Your task to perform on an android device: Go to Maps Image 0: 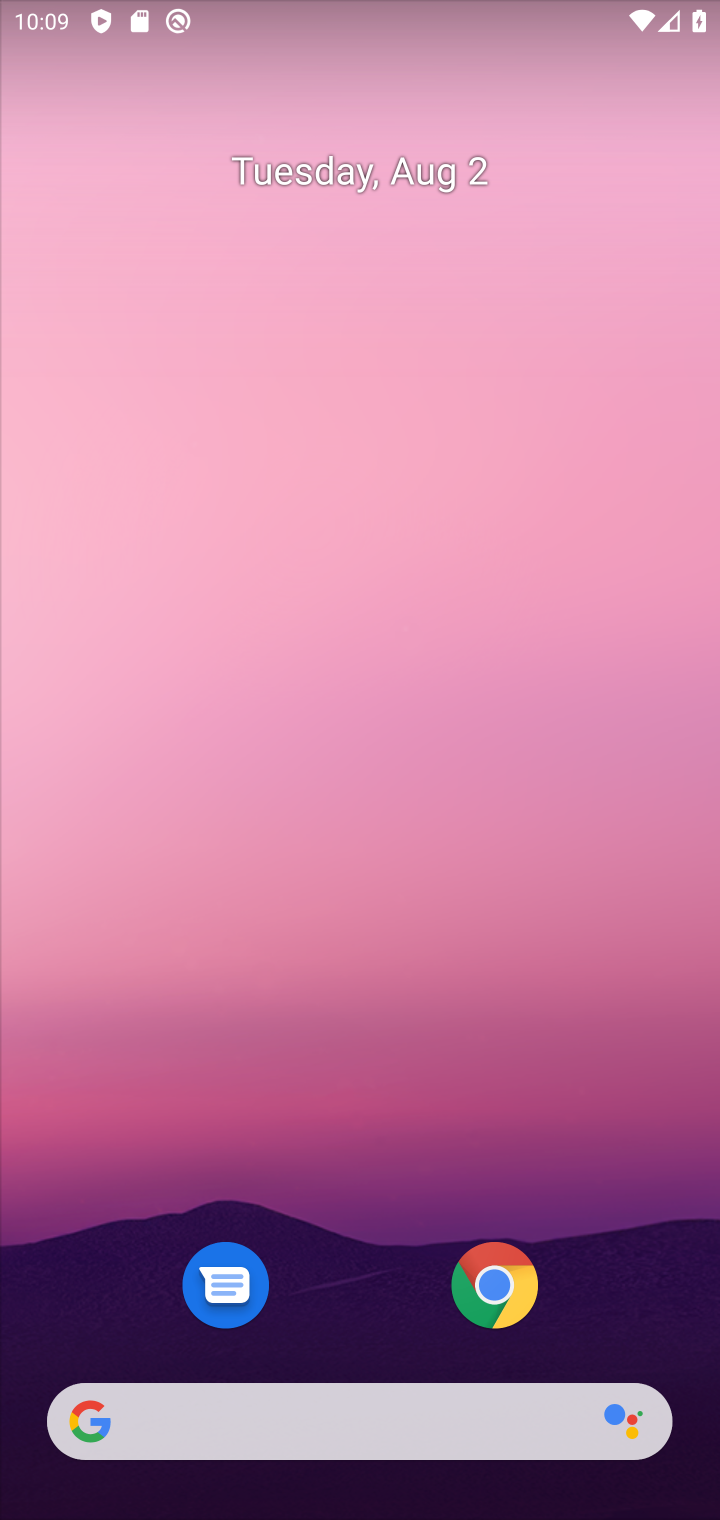
Step 0: drag from (341, 1328) to (596, 15)
Your task to perform on an android device: Go to Maps Image 1: 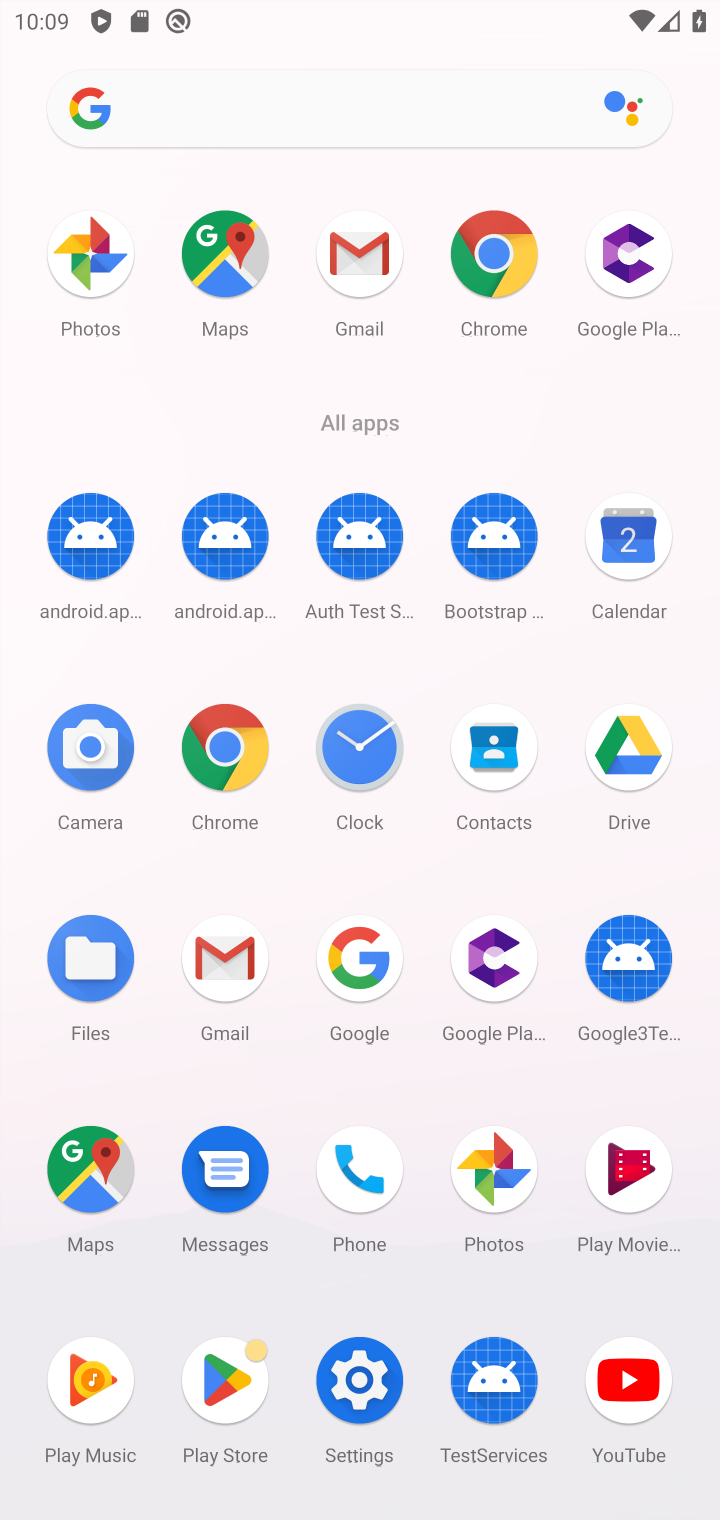
Step 1: click (86, 1169)
Your task to perform on an android device: Go to Maps Image 2: 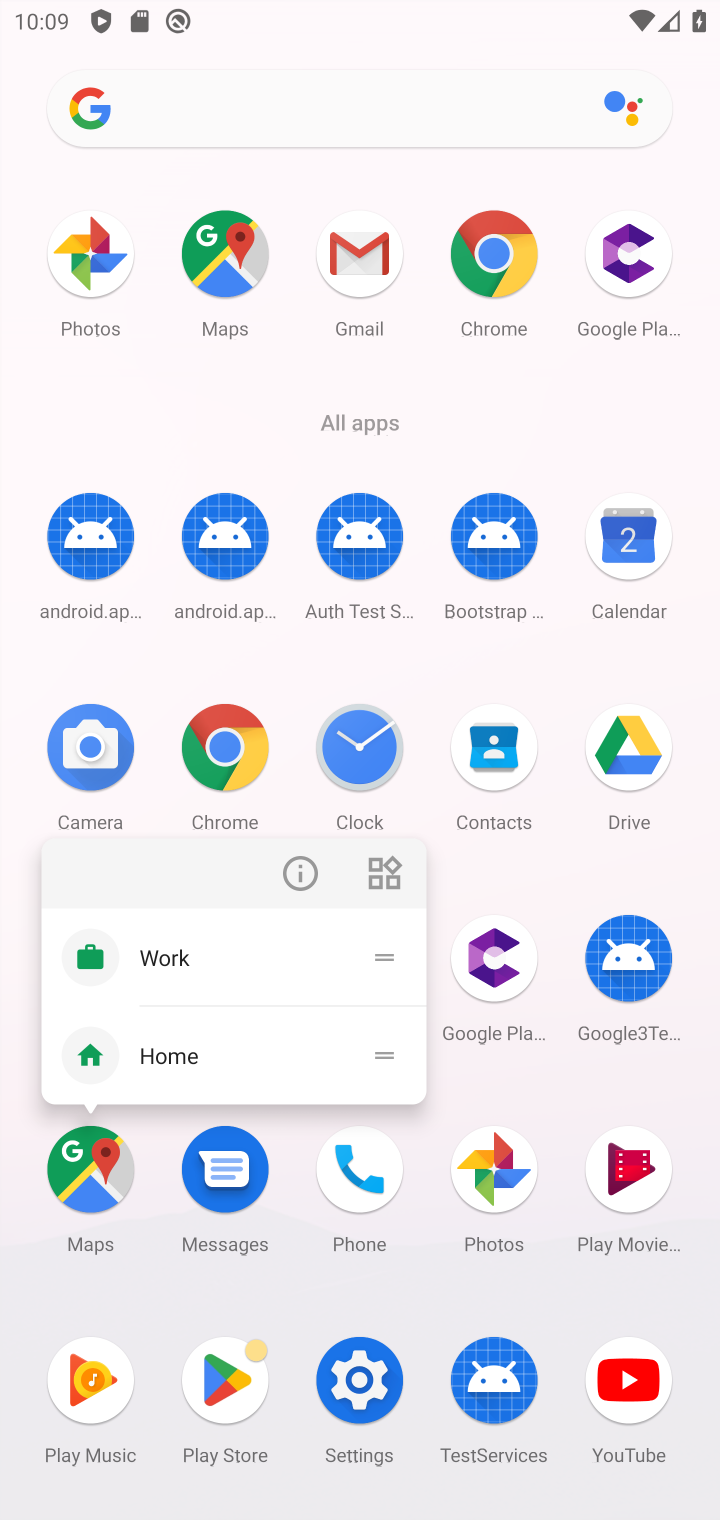
Step 2: click (297, 860)
Your task to perform on an android device: Go to Maps Image 3: 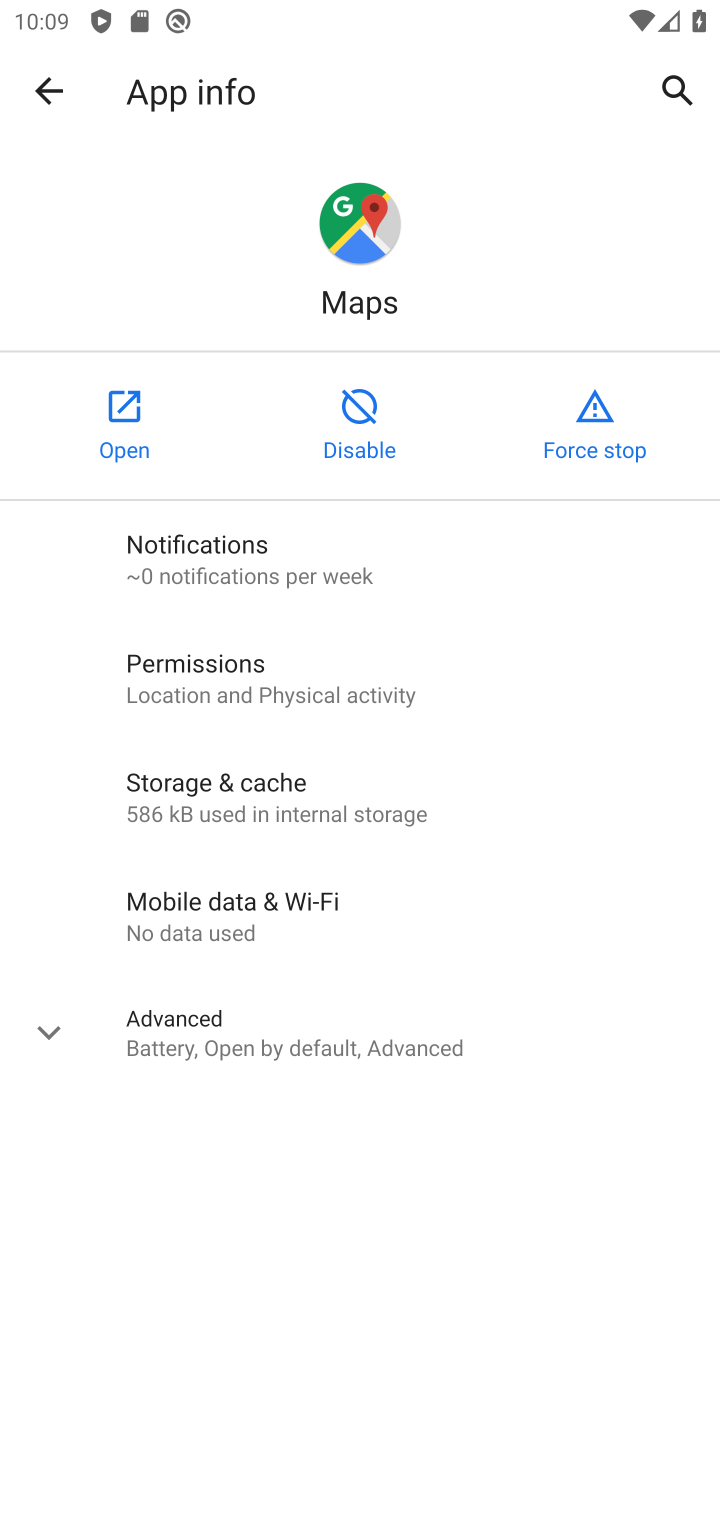
Step 3: click (131, 423)
Your task to perform on an android device: Go to Maps Image 4: 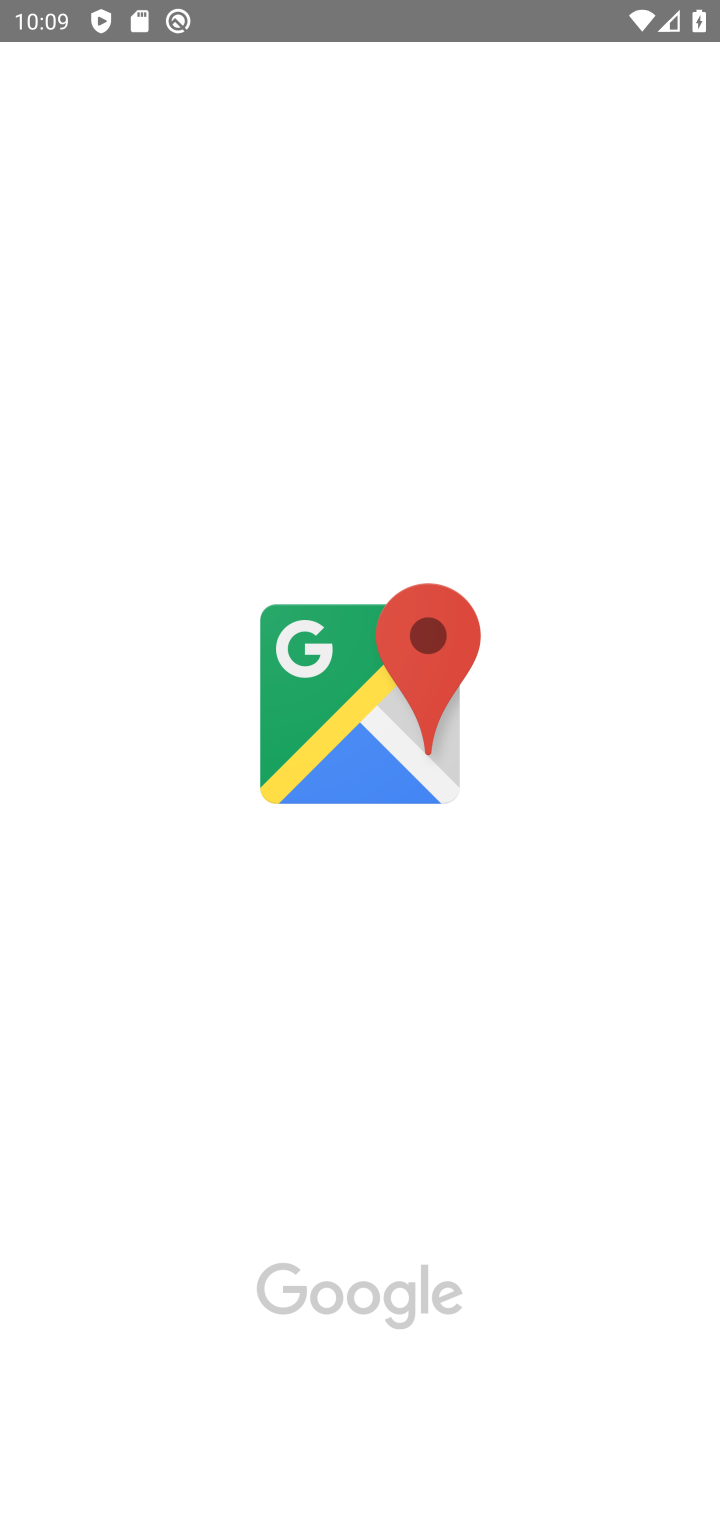
Step 4: drag from (425, 518) to (476, 1330)
Your task to perform on an android device: Go to Maps Image 5: 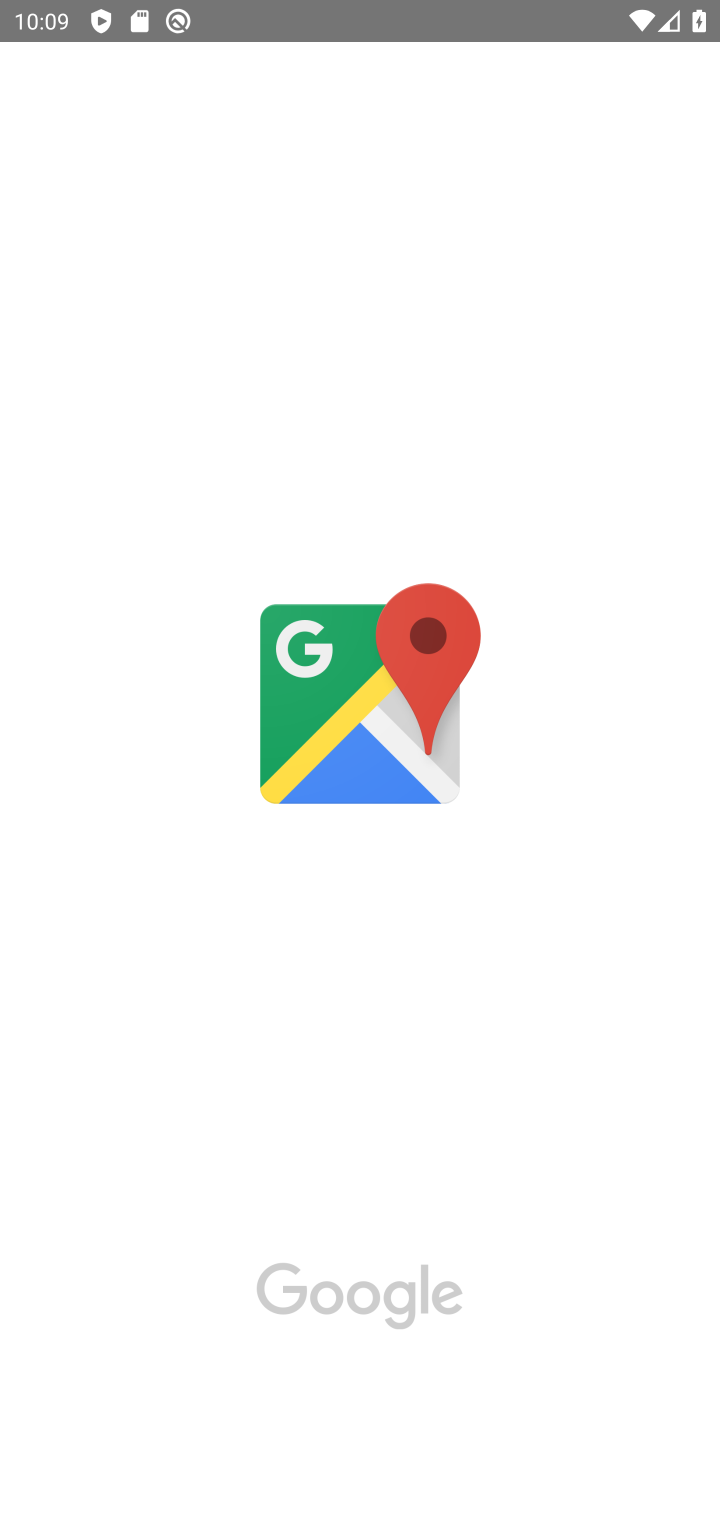
Step 5: drag from (349, 472) to (509, 1239)
Your task to perform on an android device: Go to Maps Image 6: 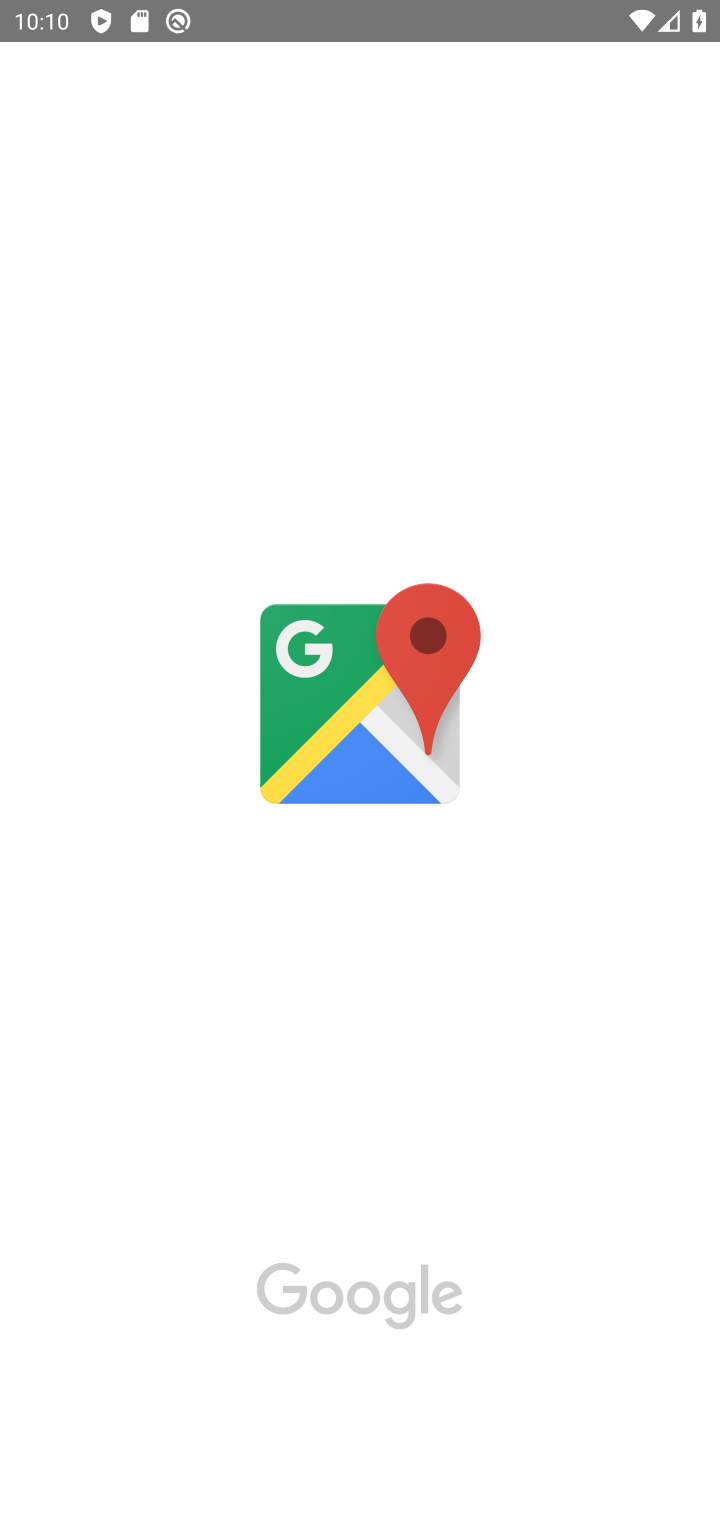
Step 6: click (400, 930)
Your task to perform on an android device: Go to Maps Image 7: 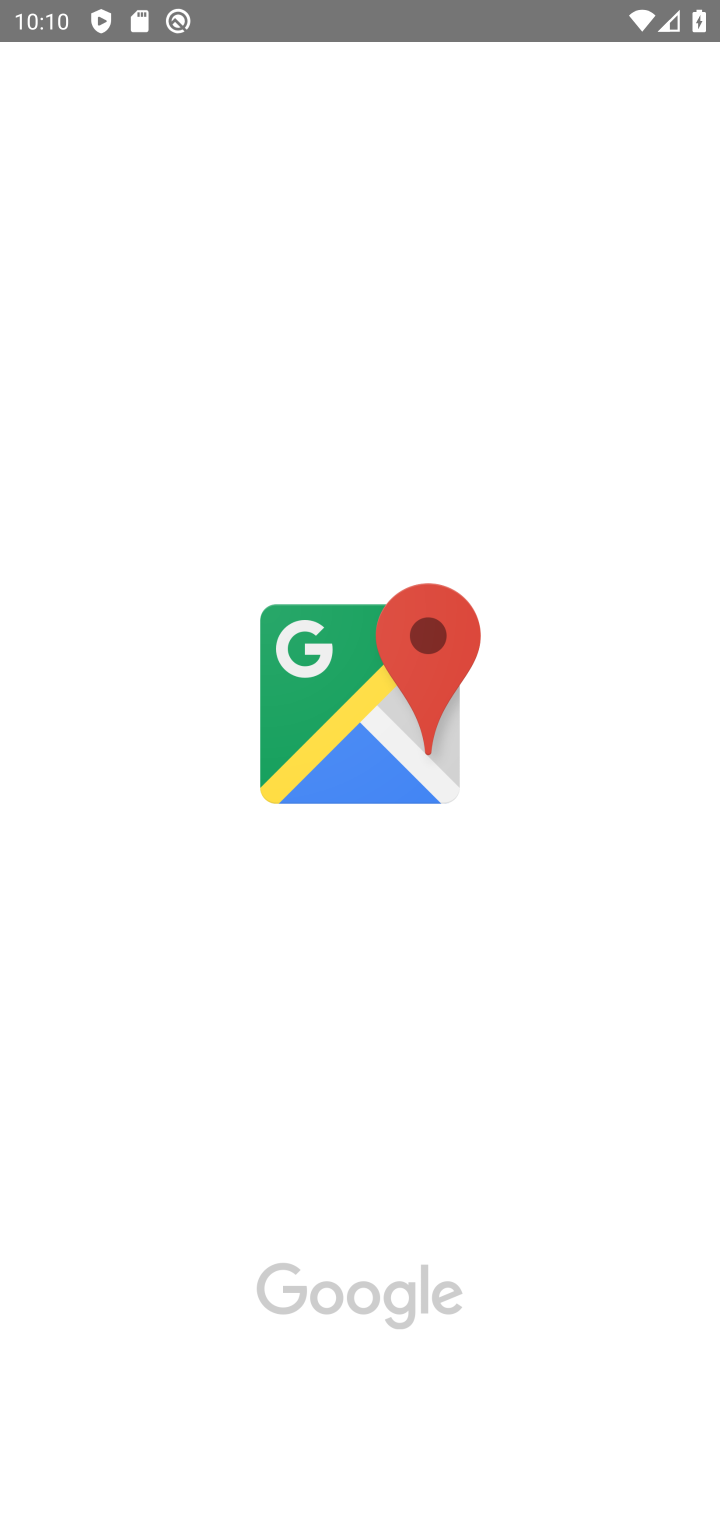
Step 7: click (567, 487)
Your task to perform on an android device: Go to Maps Image 8: 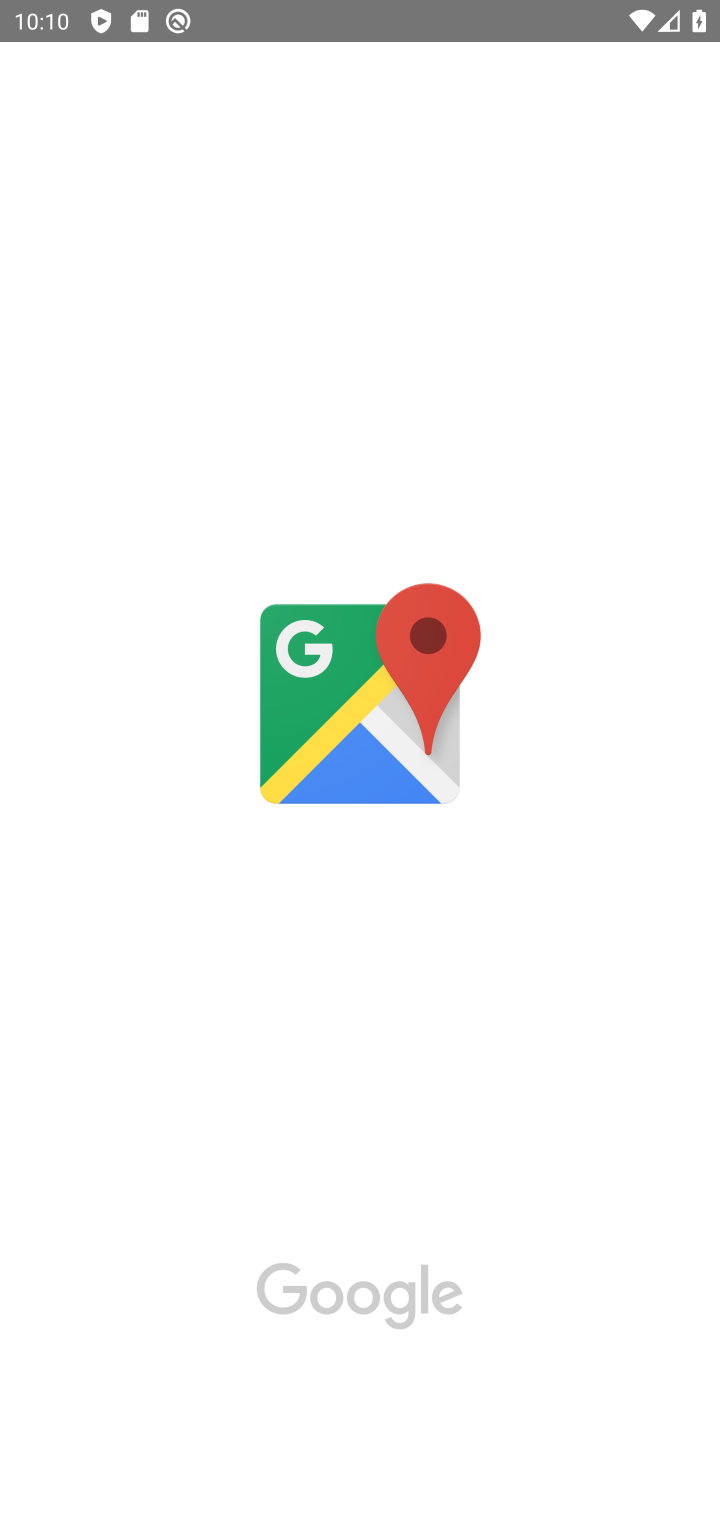
Step 8: task complete